Your task to perform on an android device: empty trash in google photos Image 0: 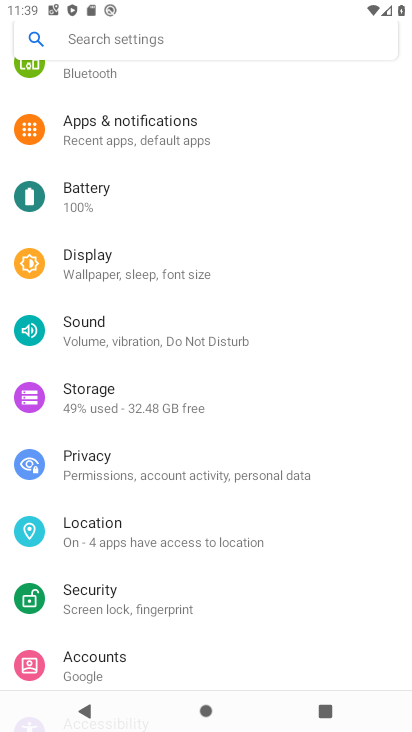
Step 0: press home button
Your task to perform on an android device: empty trash in google photos Image 1: 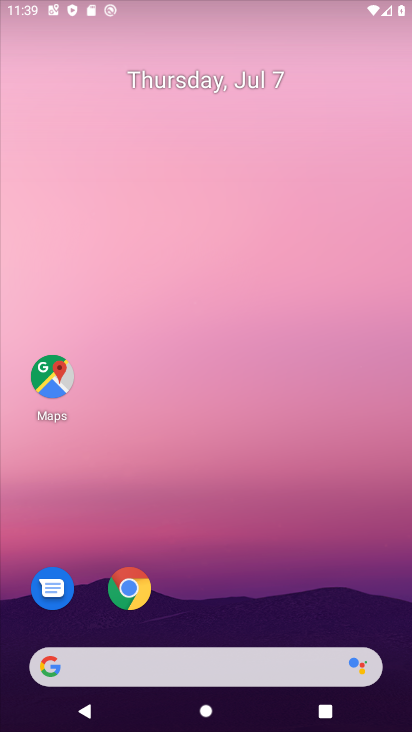
Step 1: drag from (228, 582) to (283, 102)
Your task to perform on an android device: empty trash in google photos Image 2: 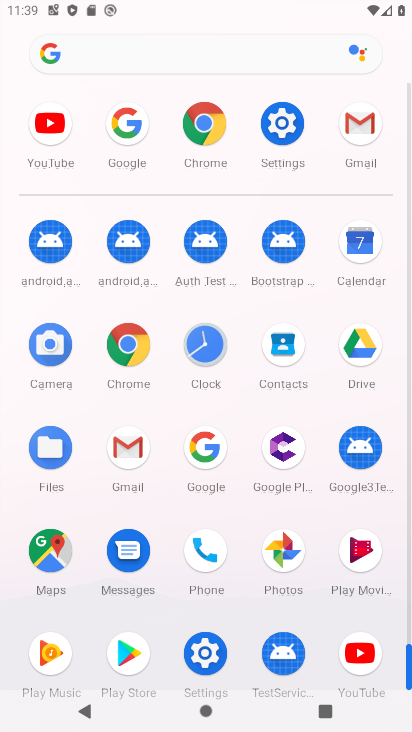
Step 2: click (287, 546)
Your task to perform on an android device: empty trash in google photos Image 3: 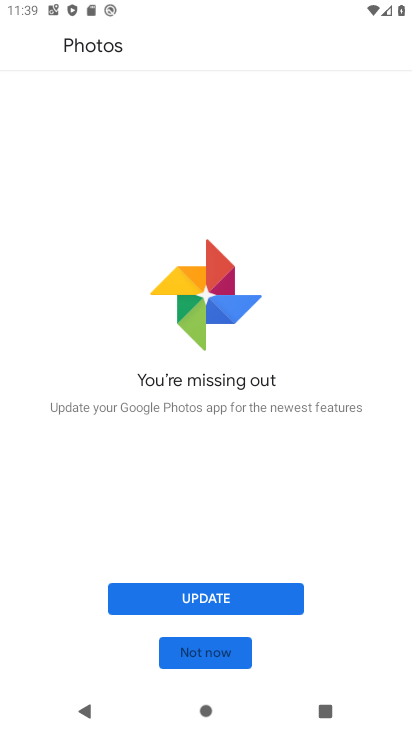
Step 3: click (199, 611)
Your task to perform on an android device: empty trash in google photos Image 4: 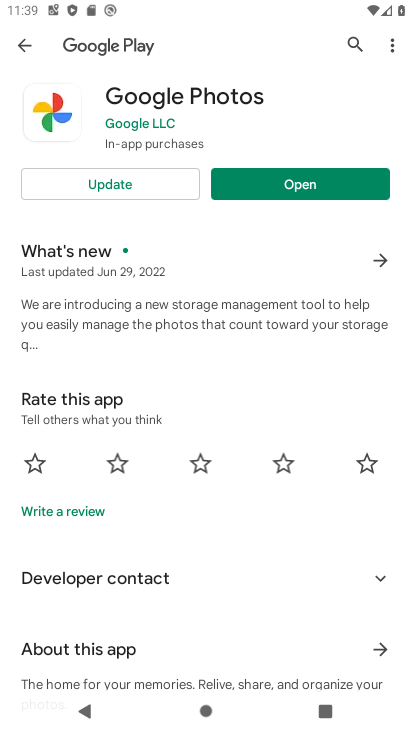
Step 4: click (110, 187)
Your task to perform on an android device: empty trash in google photos Image 5: 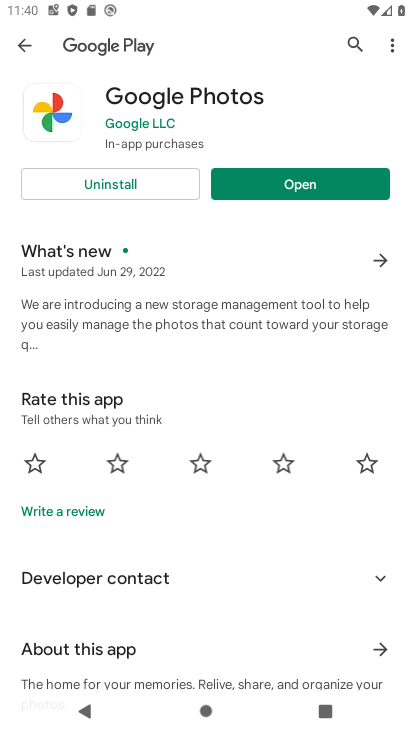
Step 5: click (302, 183)
Your task to perform on an android device: empty trash in google photos Image 6: 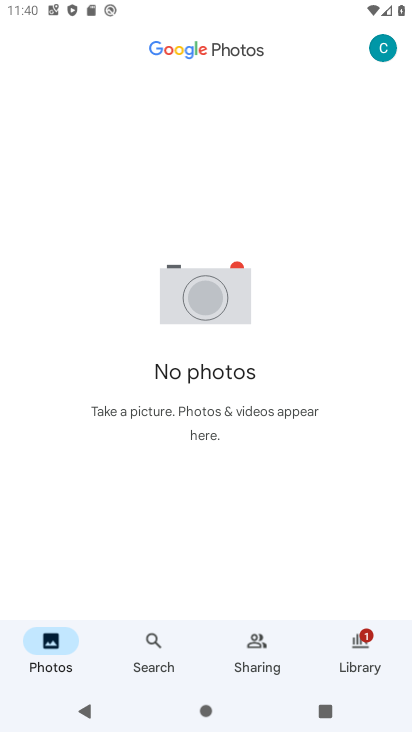
Step 6: click (364, 656)
Your task to perform on an android device: empty trash in google photos Image 7: 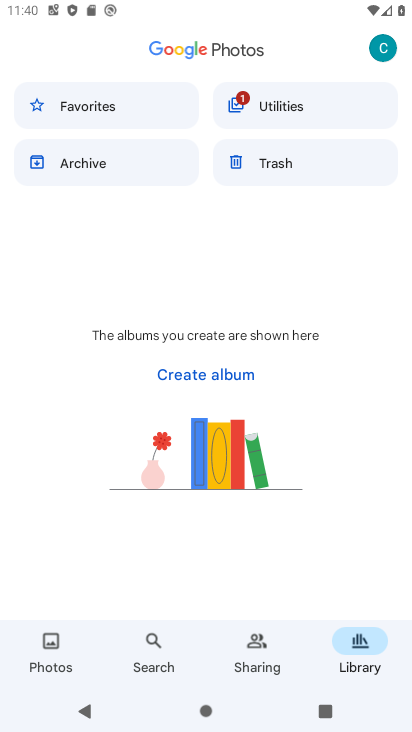
Step 7: click (264, 159)
Your task to perform on an android device: empty trash in google photos Image 8: 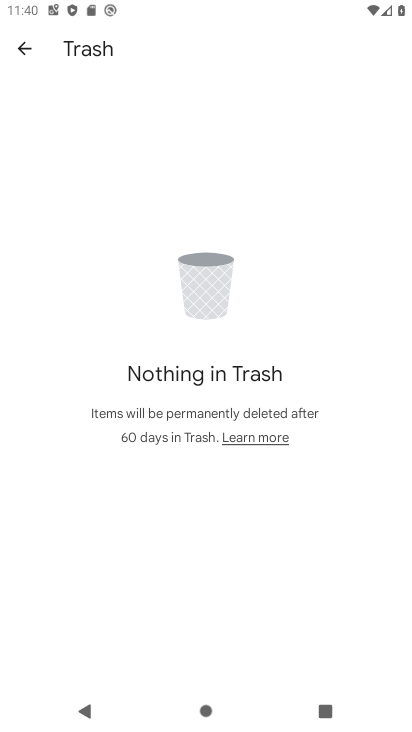
Step 8: task complete